Your task to perform on an android device: find photos in the google photos app Image 0: 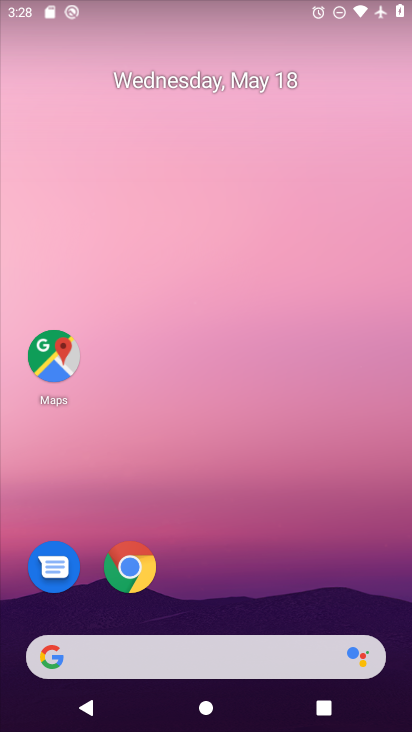
Step 0: drag from (240, 571) to (244, 182)
Your task to perform on an android device: find photos in the google photos app Image 1: 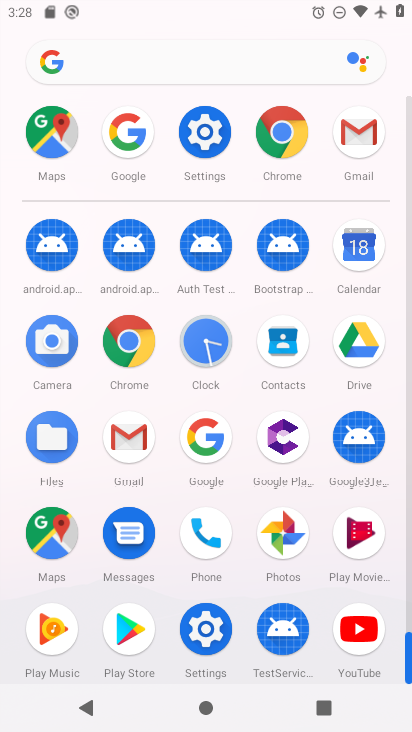
Step 1: click (269, 521)
Your task to perform on an android device: find photos in the google photos app Image 2: 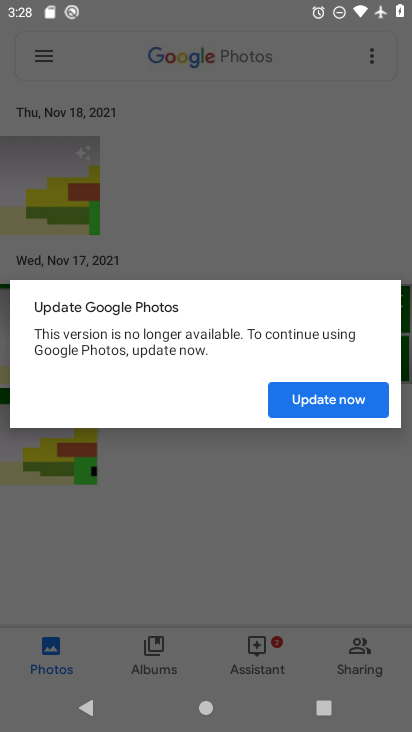
Step 2: click (318, 397)
Your task to perform on an android device: find photos in the google photos app Image 3: 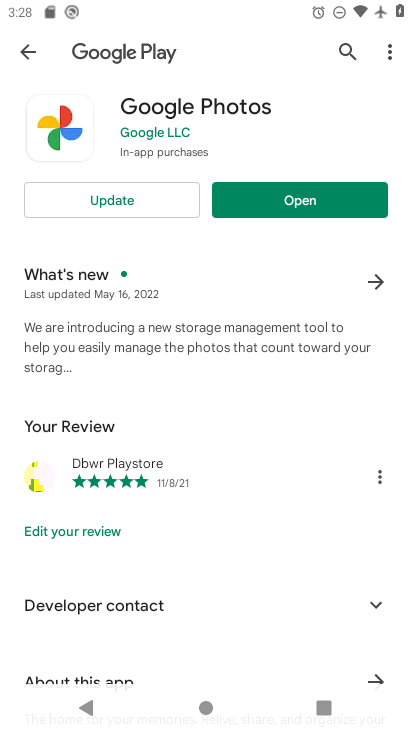
Step 3: press back button
Your task to perform on an android device: find photos in the google photos app Image 4: 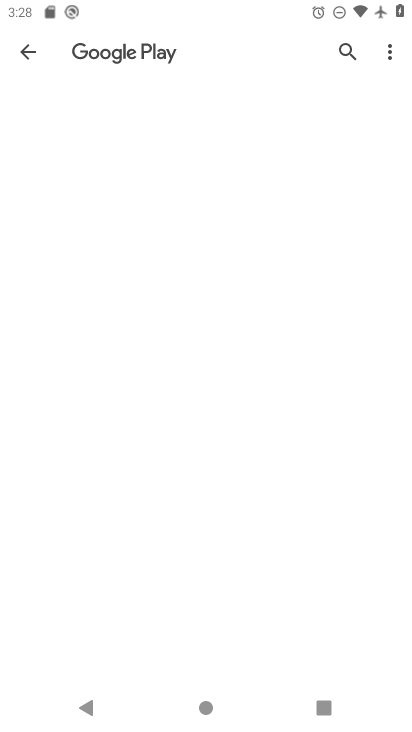
Step 4: press back button
Your task to perform on an android device: find photos in the google photos app Image 5: 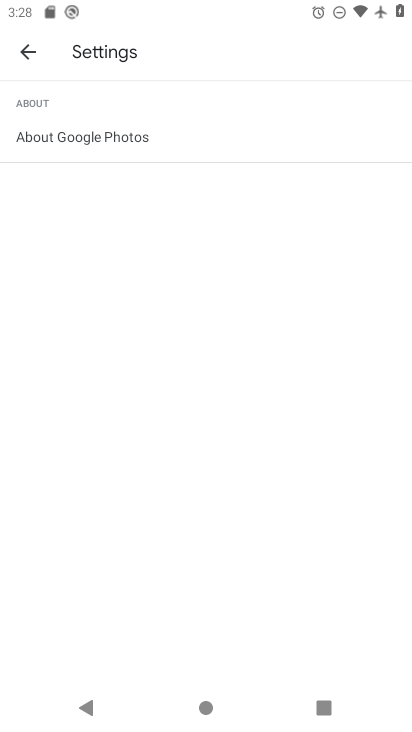
Step 5: click (28, 52)
Your task to perform on an android device: find photos in the google photos app Image 6: 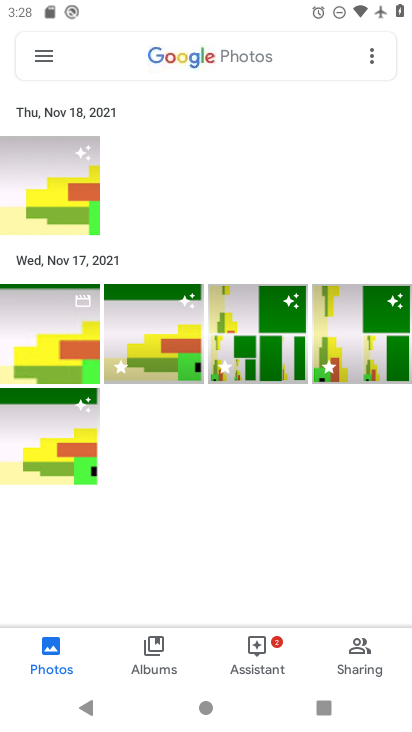
Step 6: task complete